Your task to perform on an android device: Search for the best-rated coffee table on Crate & Barrel Image 0: 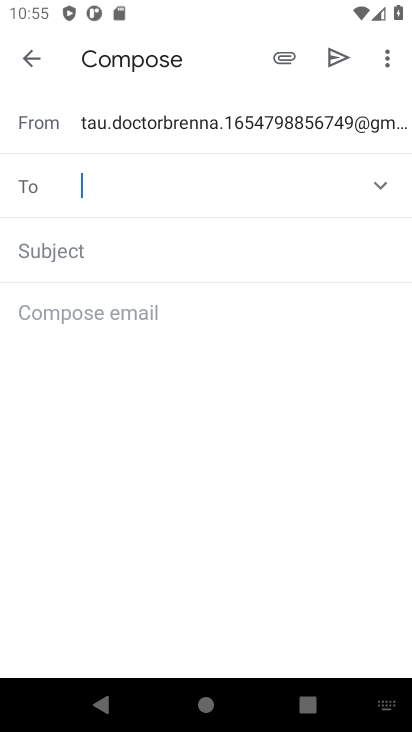
Step 0: press home button
Your task to perform on an android device: Search for the best-rated coffee table on Crate & Barrel Image 1: 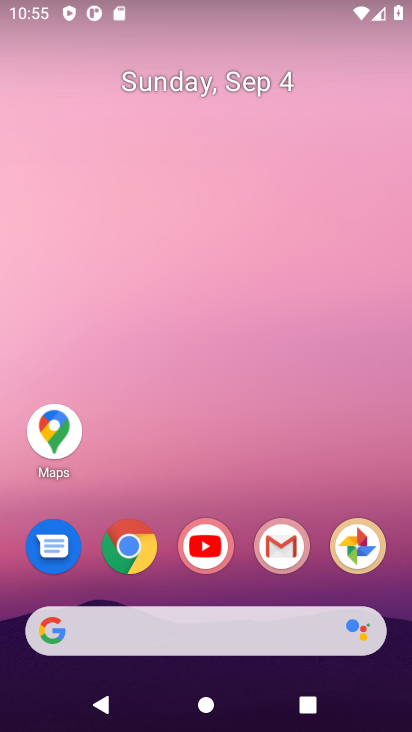
Step 1: click (137, 550)
Your task to perform on an android device: Search for the best-rated coffee table on Crate & Barrel Image 2: 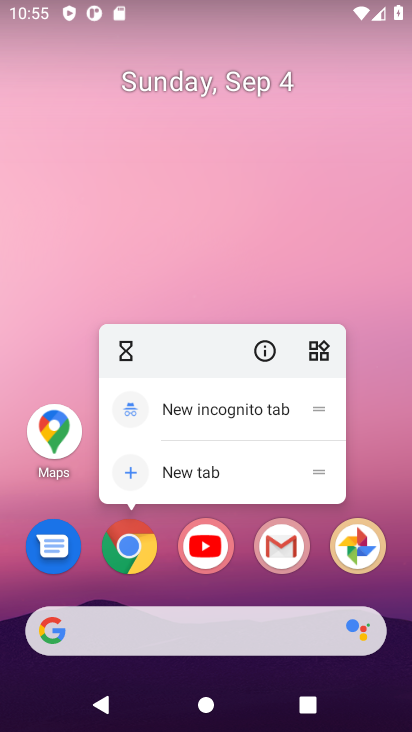
Step 2: click (137, 550)
Your task to perform on an android device: Search for the best-rated coffee table on Crate & Barrel Image 3: 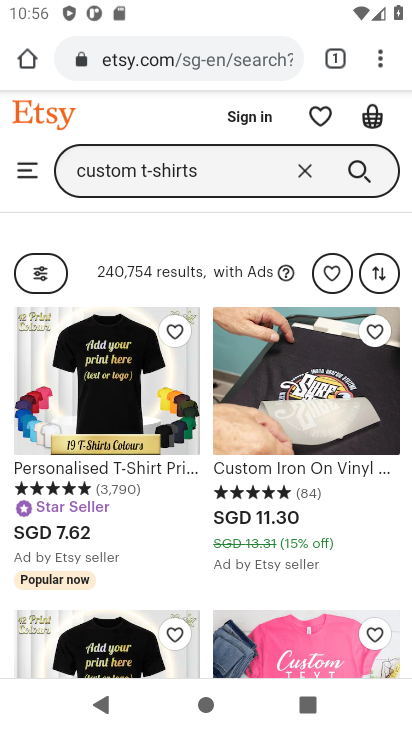
Step 3: click (171, 60)
Your task to perform on an android device: Search for the best-rated coffee table on Crate & Barrel Image 4: 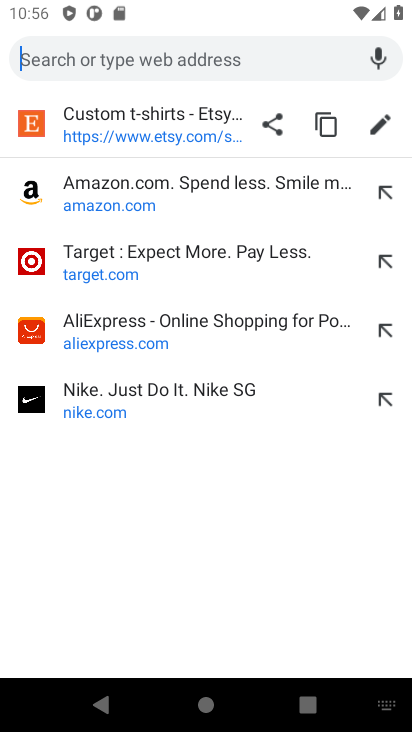
Step 4: type "Crate & Barrel"
Your task to perform on an android device: Search for the best-rated coffee table on Crate & Barrel Image 5: 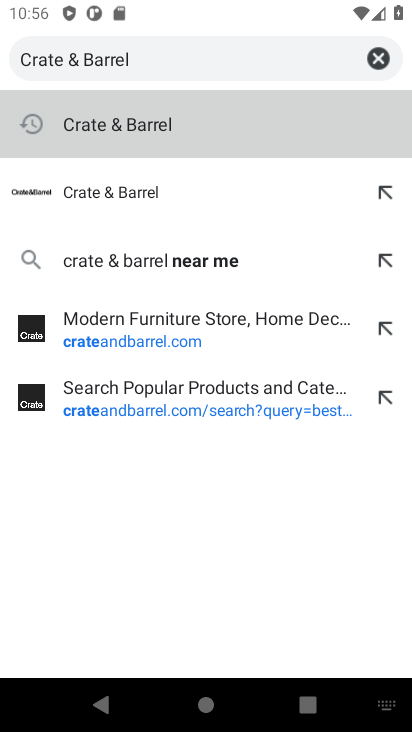
Step 5: click (132, 203)
Your task to perform on an android device: Search for the best-rated coffee table on Crate & Barrel Image 6: 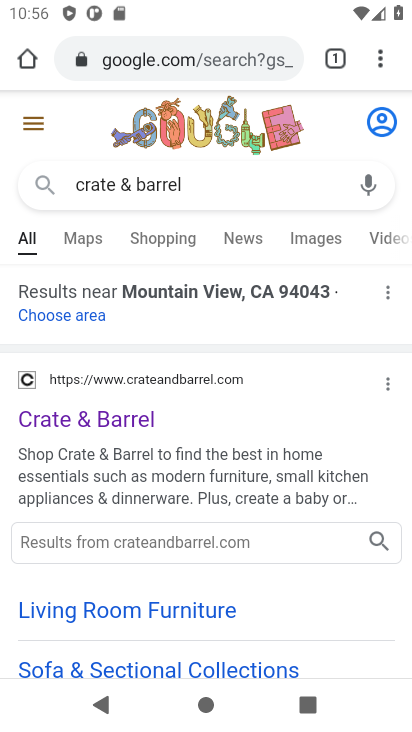
Step 6: click (81, 417)
Your task to perform on an android device: Search for the best-rated coffee table on Crate & Barrel Image 7: 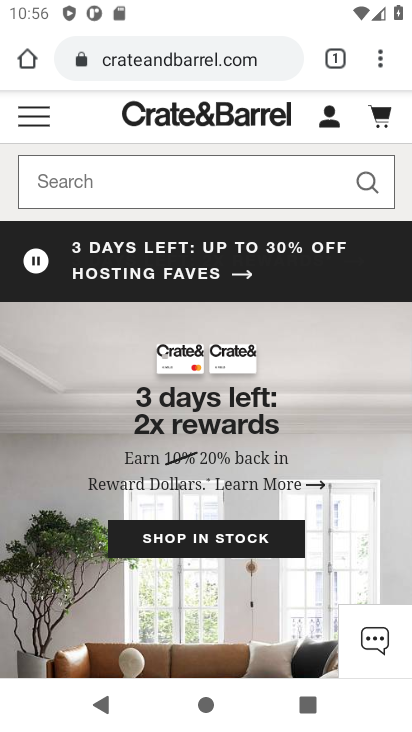
Step 7: click (195, 187)
Your task to perform on an android device: Search for the best-rated coffee table on Crate & Barrel Image 8: 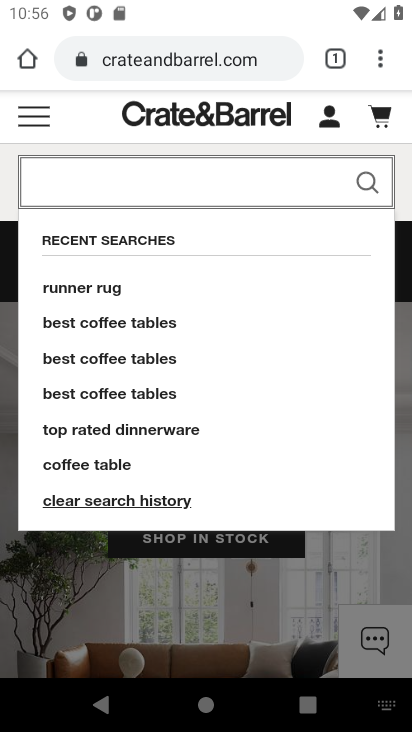
Step 8: type " best-rated coffee table"
Your task to perform on an android device: Search for the best-rated coffee table on Crate & Barrel Image 9: 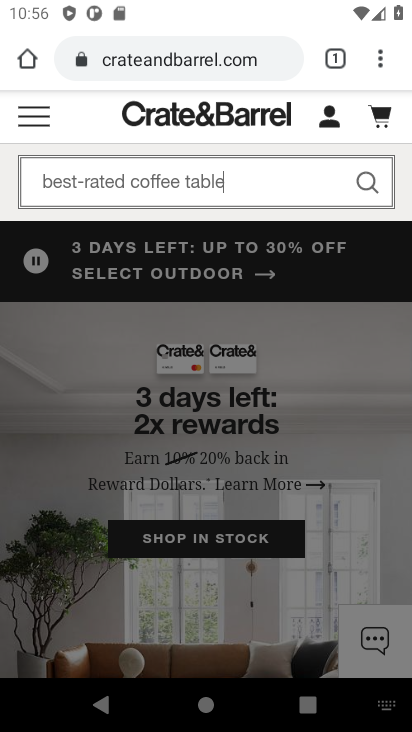
Step 9: click (367, 185)
Your task to perform on an android device: Search for the best-rated coffee table on Crate & Barrel Image 10: 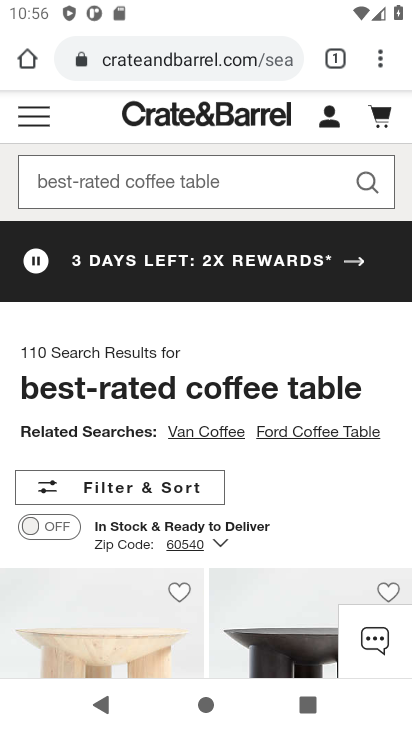
Step 10: task complete